Your task to perform on an android device: Go to location settings Image 0: 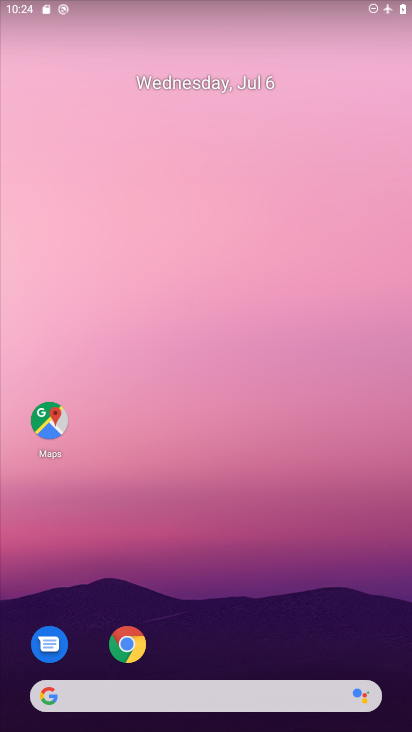
Step 0: drag from (226, 609) to (226, 112)
Your task to perform on an android device: Go to location settings Image 1: 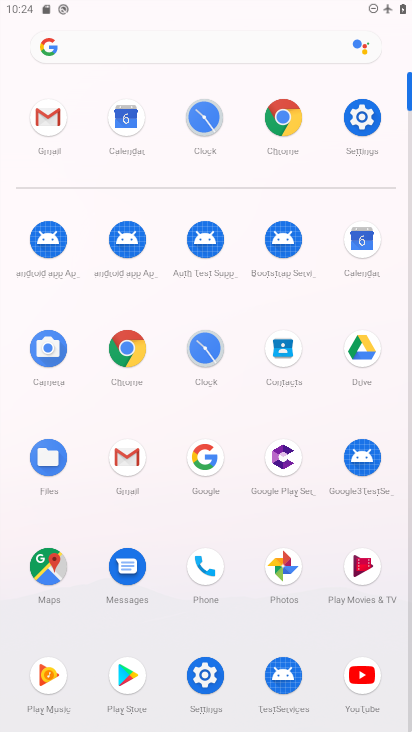
Step 1: click (357, 118)
Your task to perform on an android device: Go to location settings Image 2: 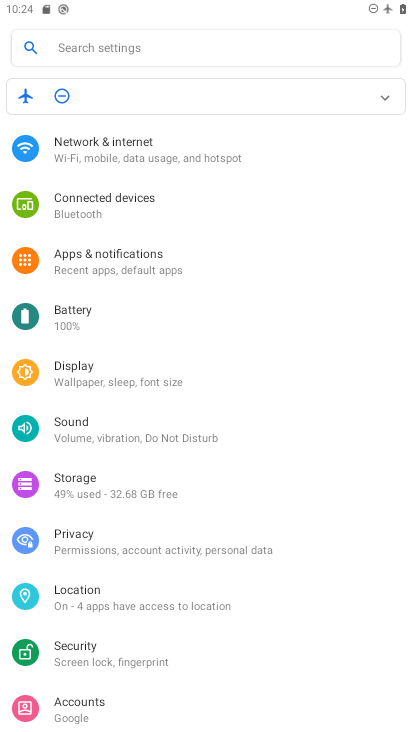
Step 2: click (109, 603)
Your task to perform on an android device: Go to location settings Image 3: 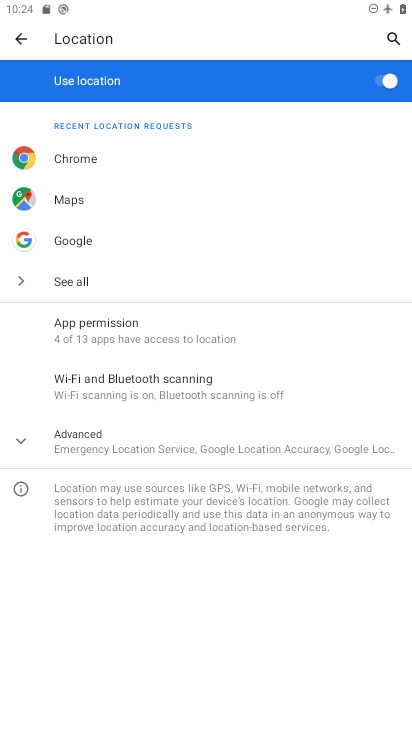
Step 3: task complete